Your task to perform on an android device: open wifi settings Image 0: 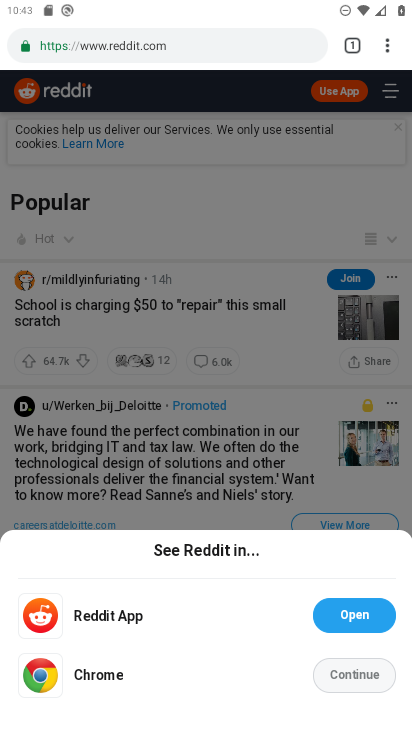
Step 0: press home button
Your task to perform on an android device: open wifi settings Image 1: 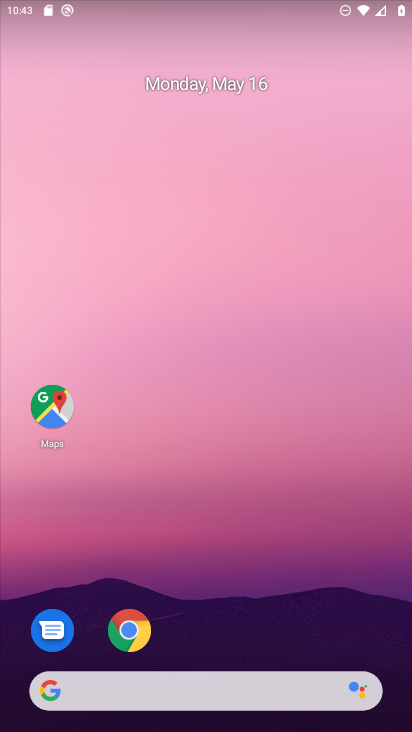
Step 1: drag from (205, 639) to (214, 75)
Your task to perform on an android device: open wifi settings Image 2: 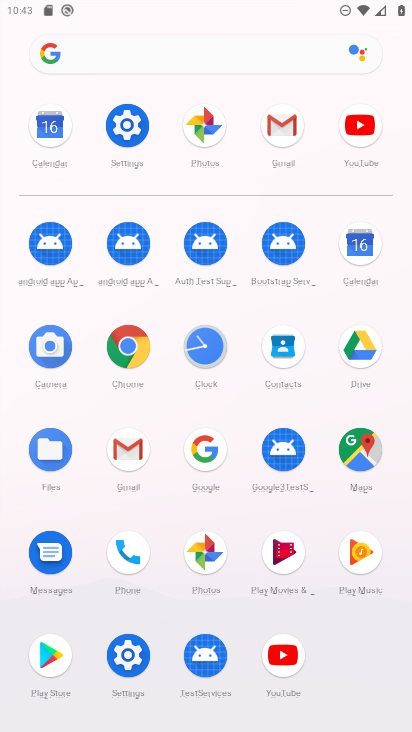
Step 2: click (132, 107)
Your task to perform on an android device: open wifi settings Image 3: 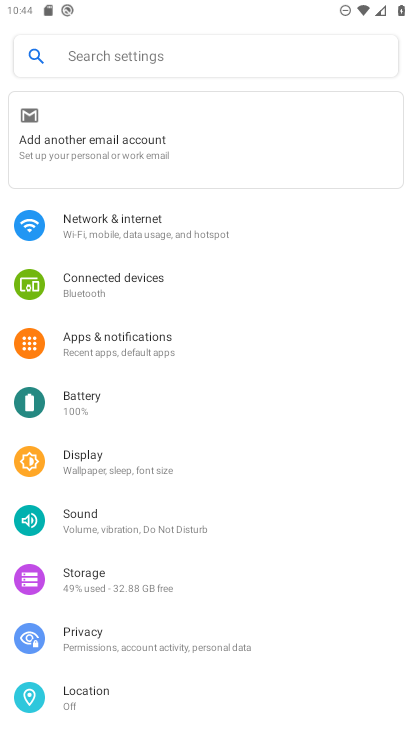
Step 3: click (112, 241)
Your task to perform on an android device: open wifi settings Image 4: 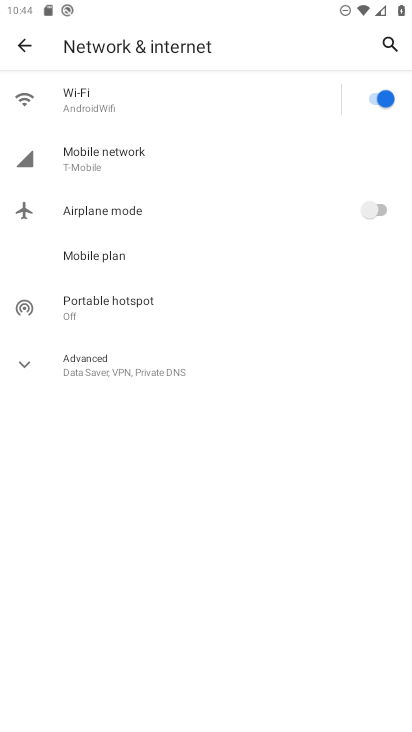
Step 4: click (134, 101)
Your task to perform on an android device: open wifi settings Image 5: 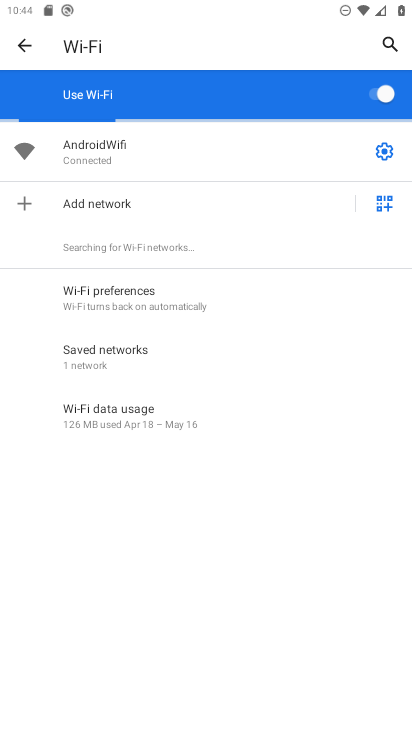
Step 5: task complete